Your task to perform on an android device: turn vacation reply on in the gmail app Image 0: 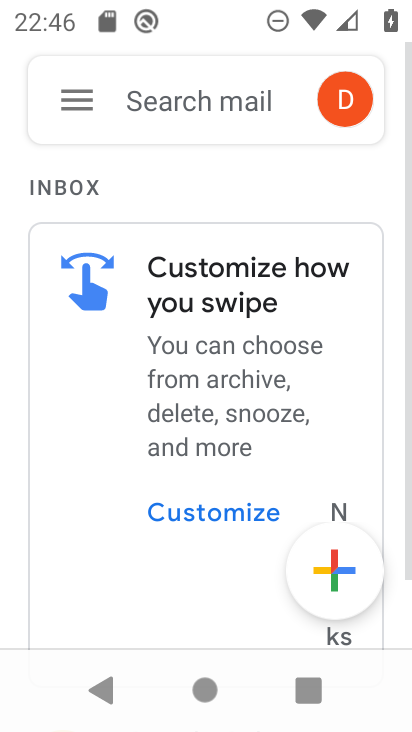
Step 0: press home button
Your task to perform on an android device: turn vacation reply on in the gmail app Image 1: 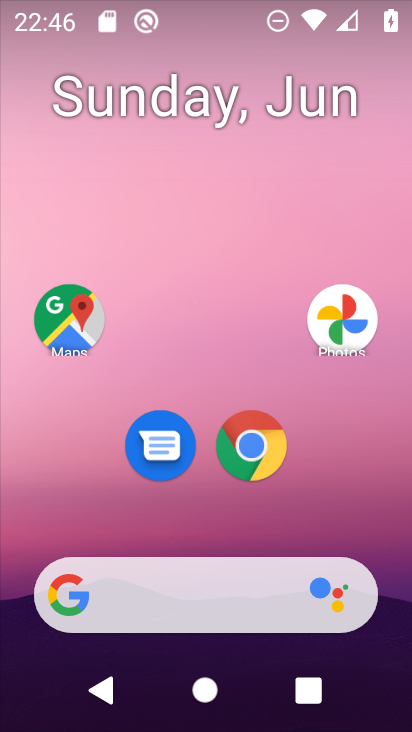
Step 1: drag from (308, 517) to (223, 105)
Your task to perform on an android device: turn vacation reply on in the gmail app Image 2: 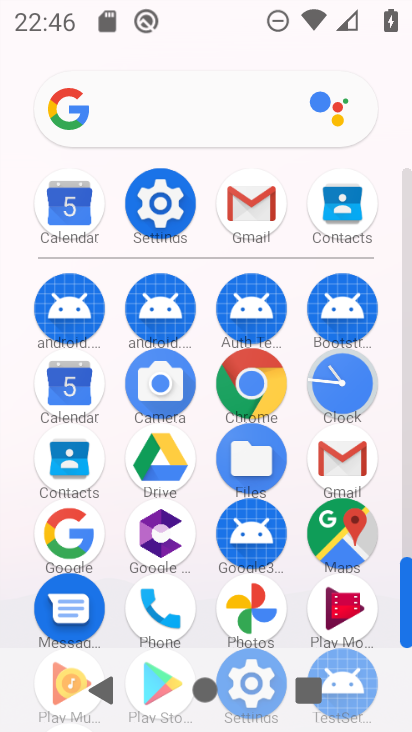
Step 2: click (247, 199)
Your task to perform on an android device: turn vacation reply on in the gmail app Image 3: 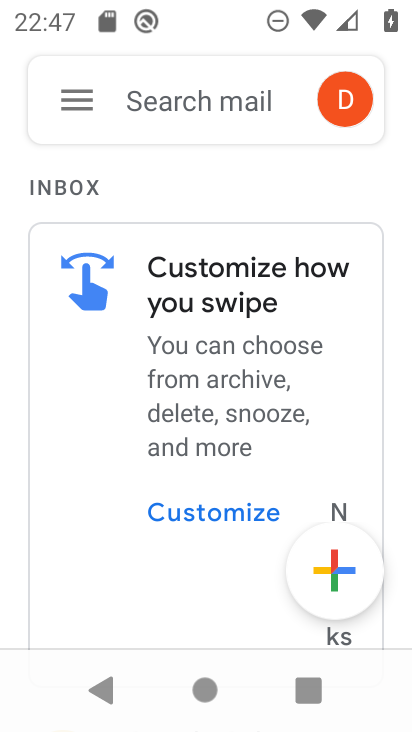
Step 3: click (83, 102)
Your task to perform on an android device: turn vacation reply on in the gmail app Image 4: 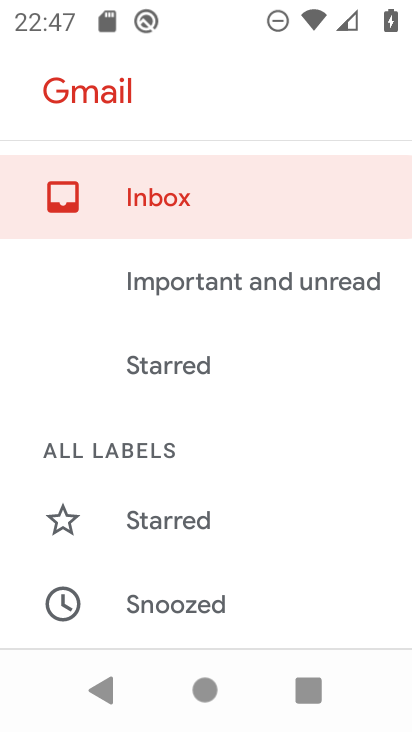
Step 4: drag from (302, 432) to (257, 99)
Your task to perform on an android device: turn vacation reply on in the gmail app Image 5: 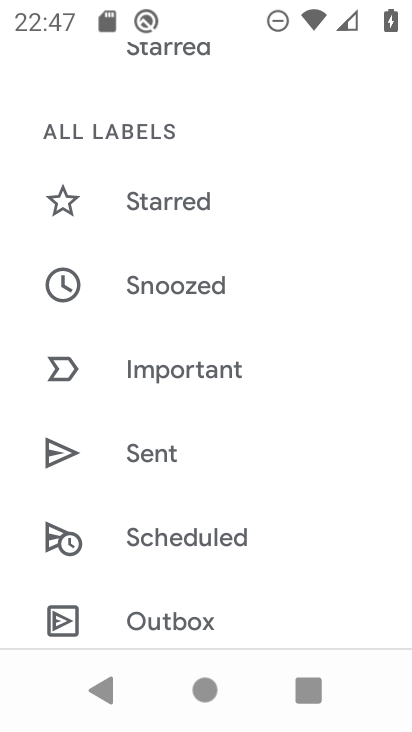
Step 5: drag from (322, 543) to (339, 82)
Your task to perform on an android device: turn vacation reply on in the gmail app Image 6: 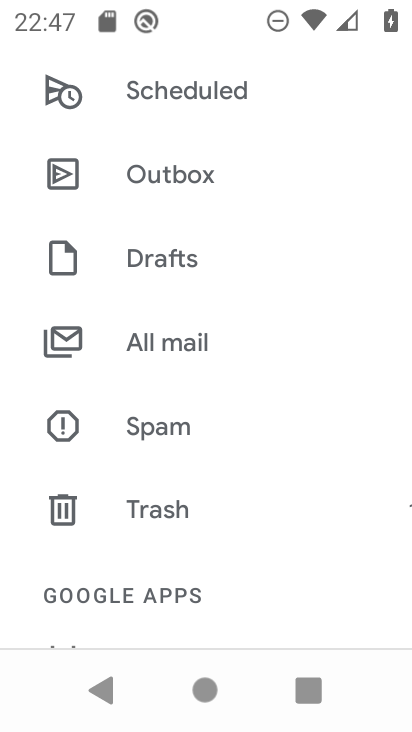
Step 6: drag from (247, 427) to (238, 120)
Your task to perform on an android device: turn vacation reply on in the gmail app Image 7: 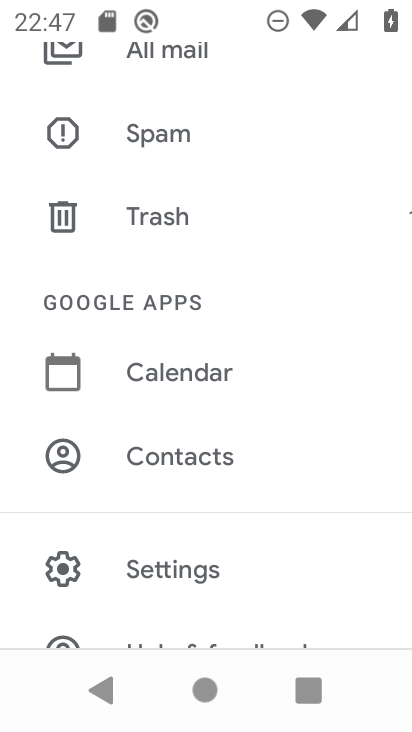
Step 7: click (175, 584)
Your task to perform on an android device: turn vacation reply on in the gmail app Image 8: 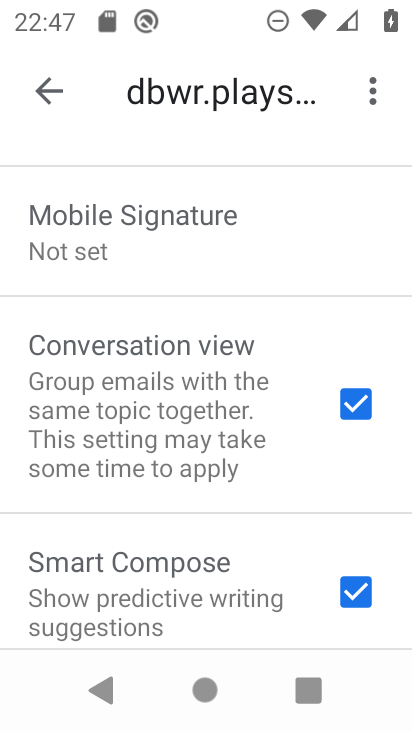
Step 8: drag from (310, 541) to (285, 81)
Your task to perform on an android device: turn vacation reply on in the gmail app Image 9: 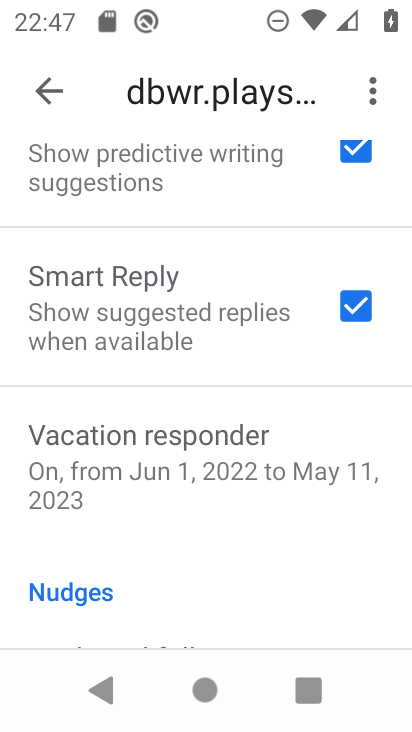
Step 9: click (157, 433)
Your task to perform on an android device: turn vacation reply on in the gmail app Image 10: 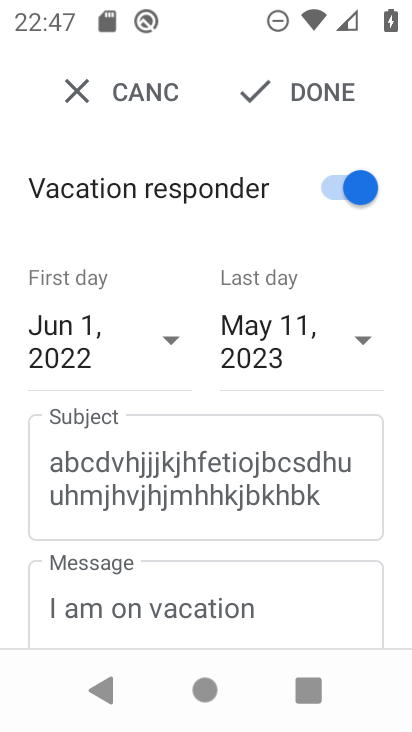
Step 10: task complete